Your task to perform on an android device: change text size in settings app Image 0: 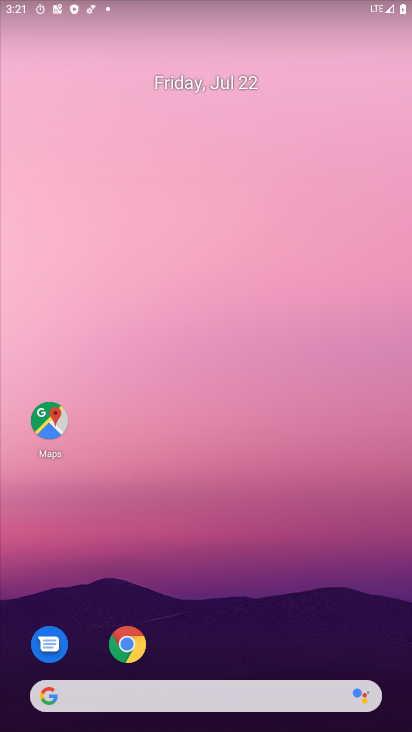
Step 0: press home button
Your task to perform on an android device: change text size in settings app Image 1: 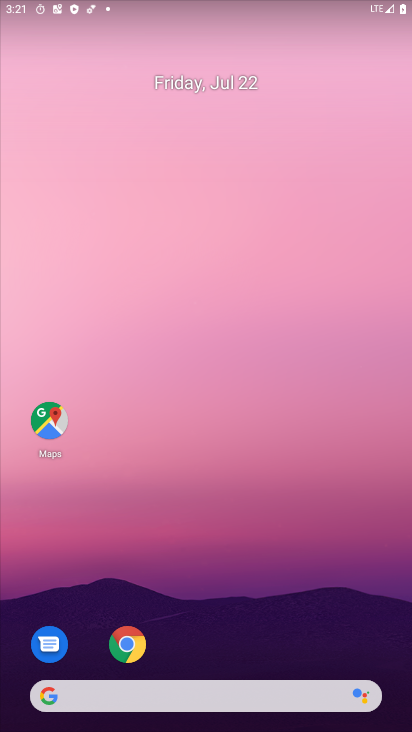
Step 1: drag from (201, 651) to (226, 21)
Your task to perform on an android device: change text size in settings app Image 2: 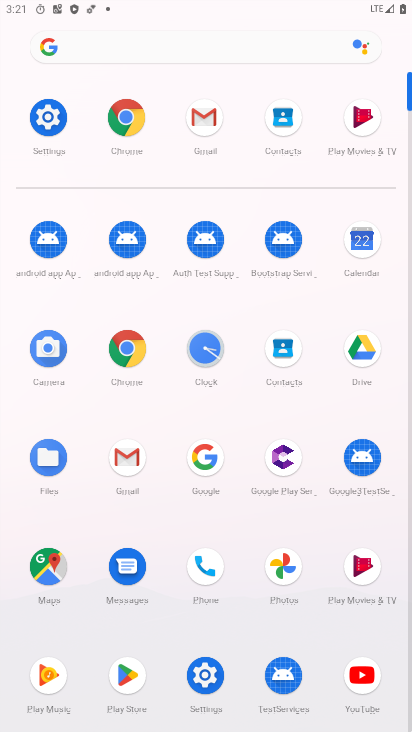
Step 2: click (48, 118)
Your task to perform on an android device: change text size in settings app Image 3: 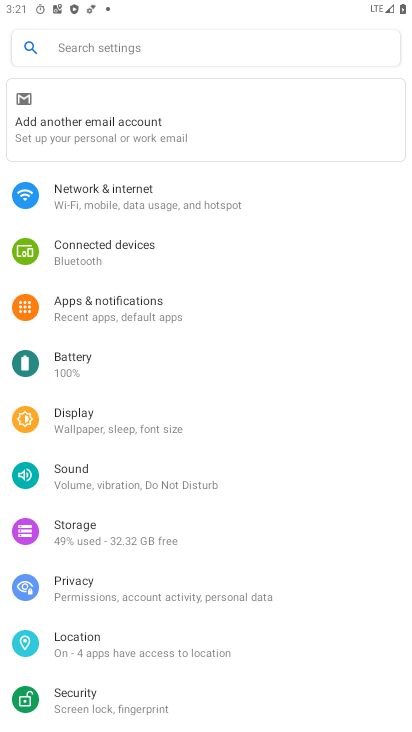
Step 3: click (78, 422)
Your task to perform on an android device: change text size in settings app Image 4: 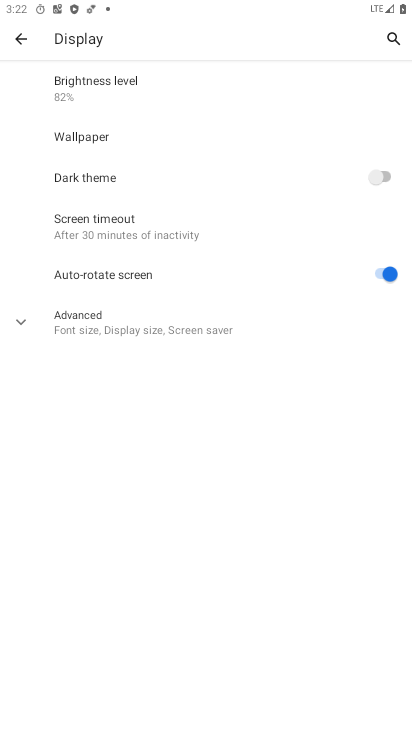
Step 4: click (78, 324)
Your task to perform on an android device: change text size in settings app Image 5: 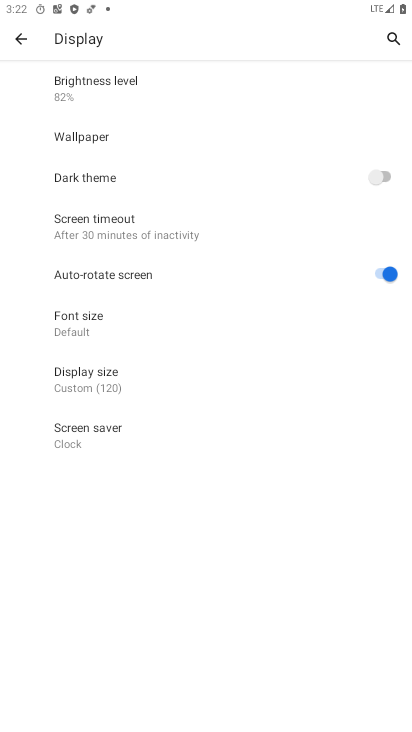
Step 5: click (69, 322)
Your task to perform on an android device: change text size in settings app Image 6: 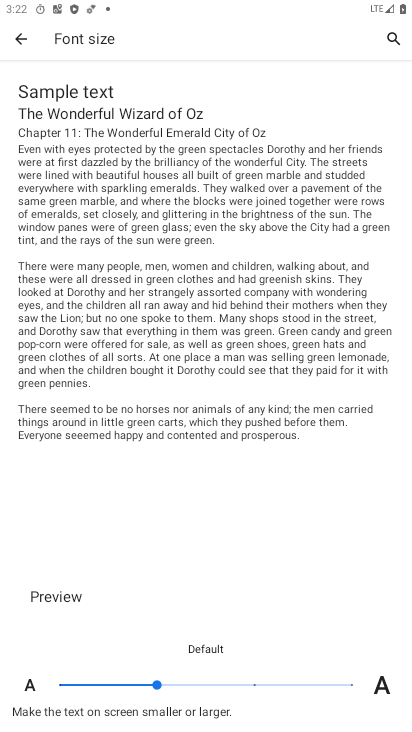
Step 6: click (254, 682)
Your task to perform on an android device: change text size in settings app Image 7: 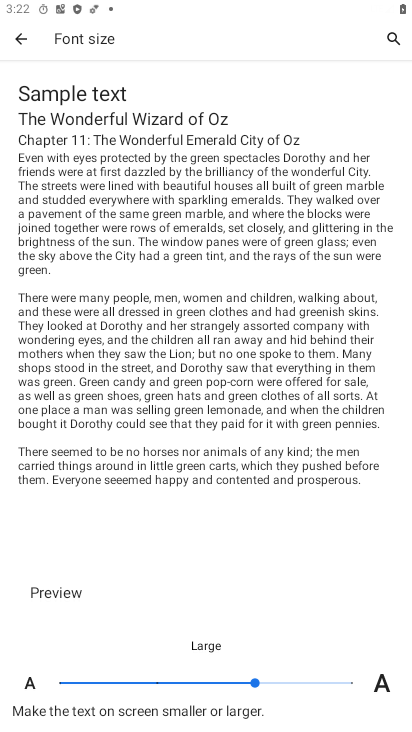
Step 7: click (346, 687)
Your task to perform on an android device: change text size in settings app Image 8: 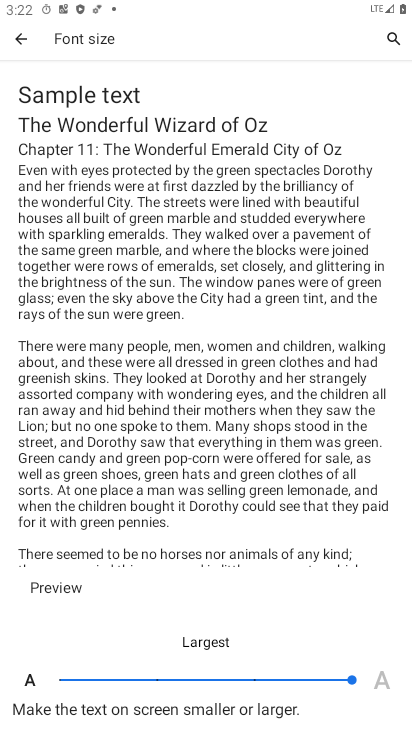
Step 8: task complete